Your task to perform on an android device: make emails show in primary in the gmail app Image 0: 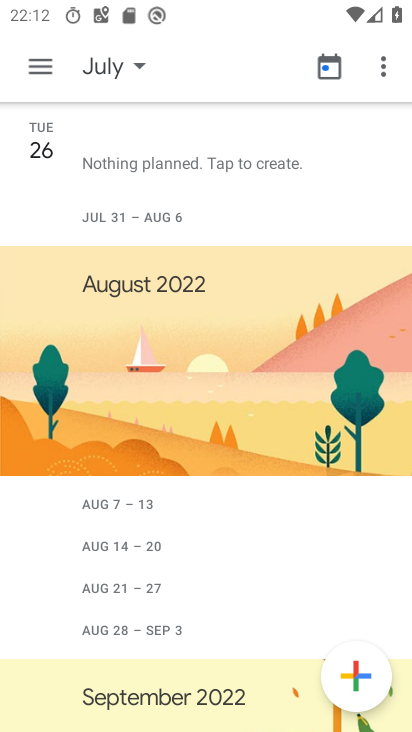
Step 0: press home button
Your task to perform on an android device: make emails show in primary in the gmail app Image 1: 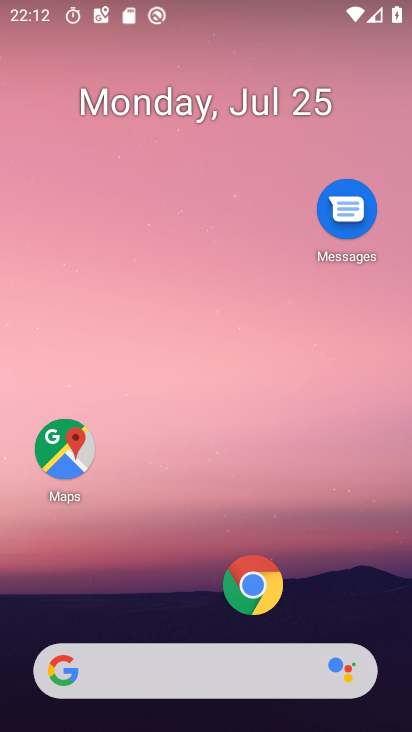
Step 1: drag from (143, 664) to (303, 26)
Your task to perform on an android device: make emails show in primary in the gmail app Image 2: 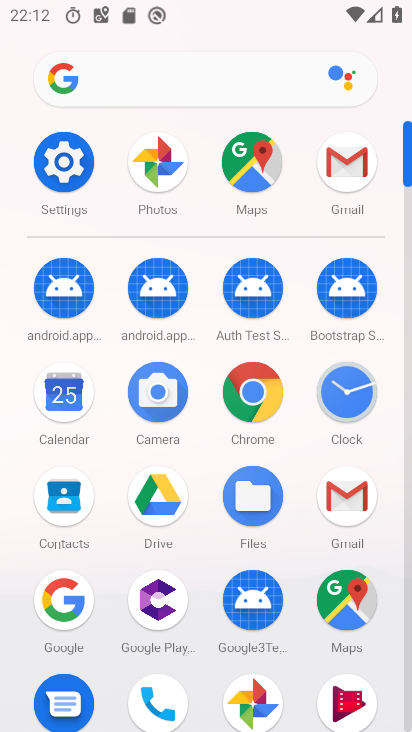
Step 2: click (344, 173)
Your task to perform on an android device: make emails show in primary in the gmail app Image 3: 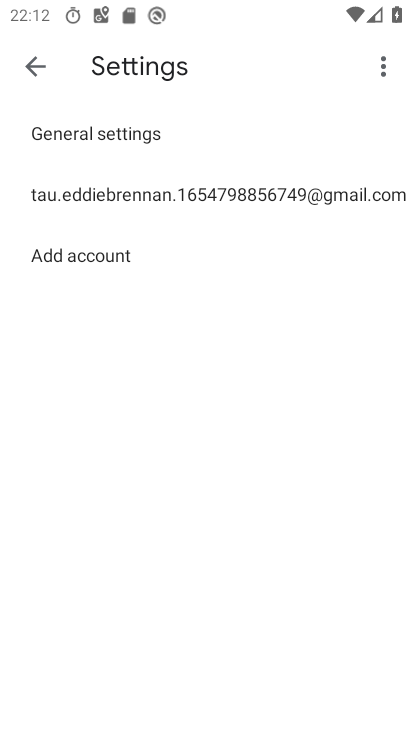
Step 3: click (208, 188)
Your task to perform on an android device: make emails show in primary in the gmail app Image 4: 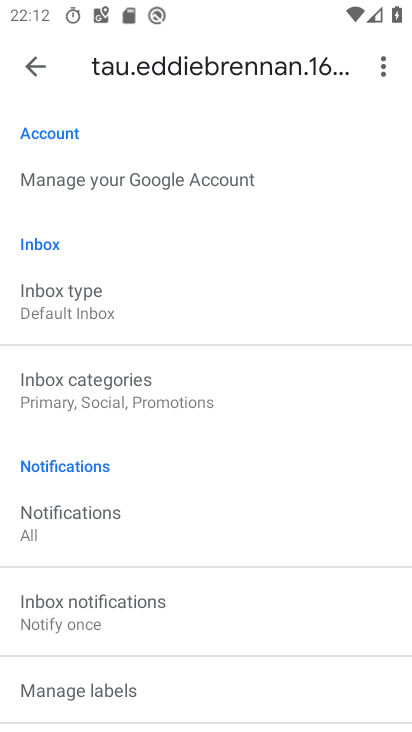
Step 4: click (80, 299)
Your task to perform on an android device: make emails show in primary in the gmail app Image 5: 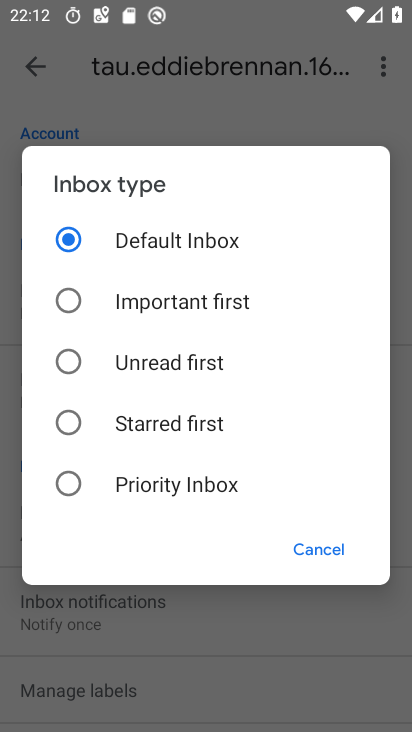
Step 5: click (311, 548)
Your task to perform on an android device: make emails show in primary in the gmail app Image 6: 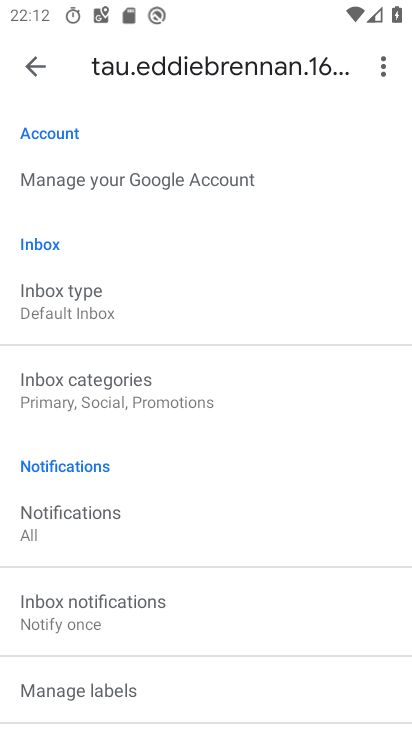
Step 6: click (122, 398)
Your task to perform on an android device: make emails show in primary in the gmail app Image 7: 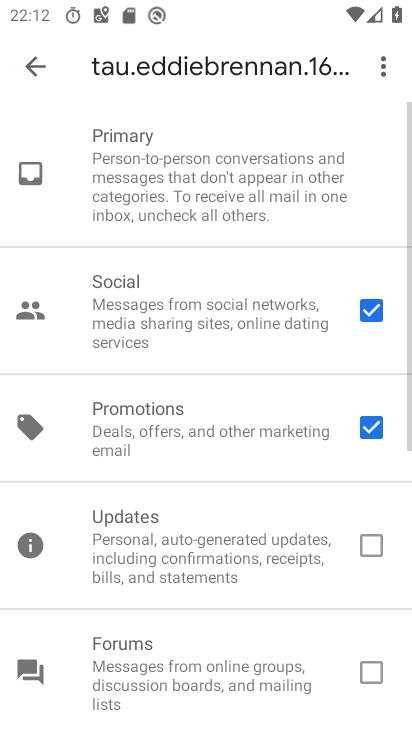
Step 7: click (366, 308)
Your task to perform on an android device: make emails show in primary in the gmail app Image 8: 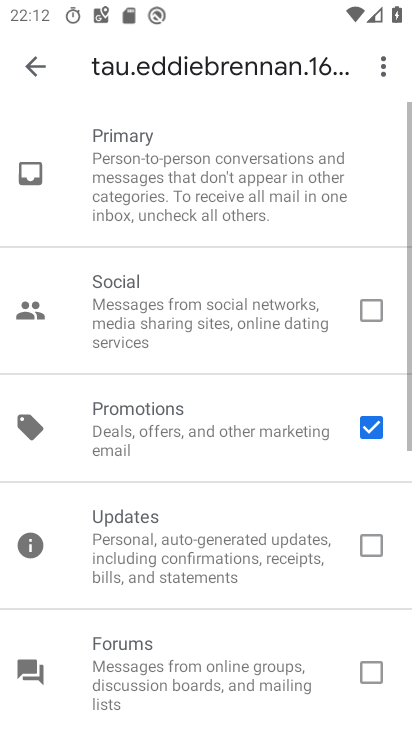
Step 8: click (371, 429)
Your task to perform on an android device: make emails show in primary in the gmail app Image 9: 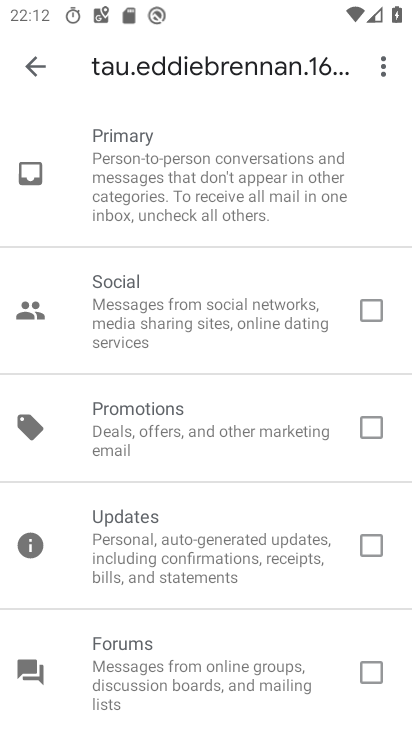
Step 9: click (35, 64)
Your task to perform on an android device: make emails show in primary in the gmail app Image 10: 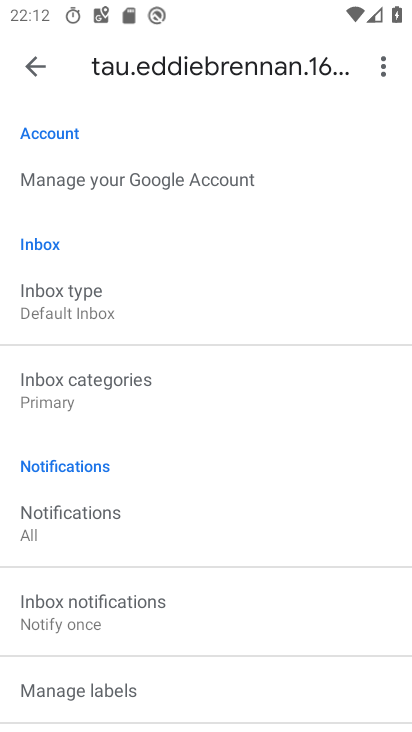
Step 10: task complete